Your task to perform on an android device: Go to Amazon Image 0: 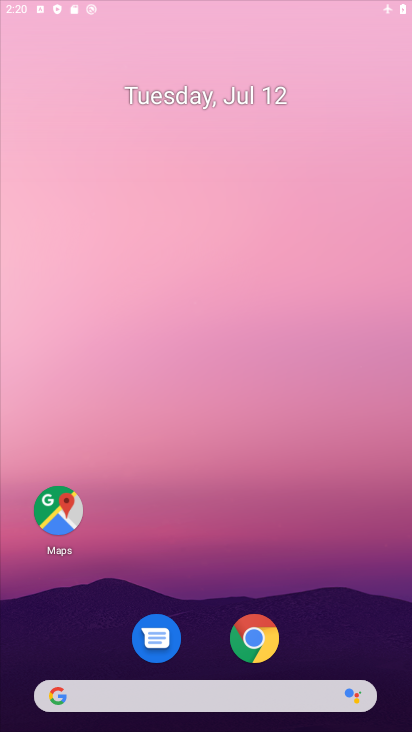
Step 0: click (294, 24)
Your task to perform on an android device: Go to Amazon Image 1: 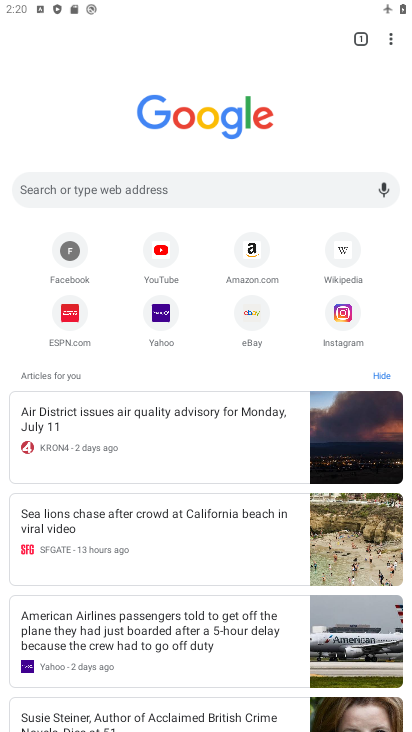
Step 1: press back button
Your task to perform on an android device: Go to Amazon Image 2: 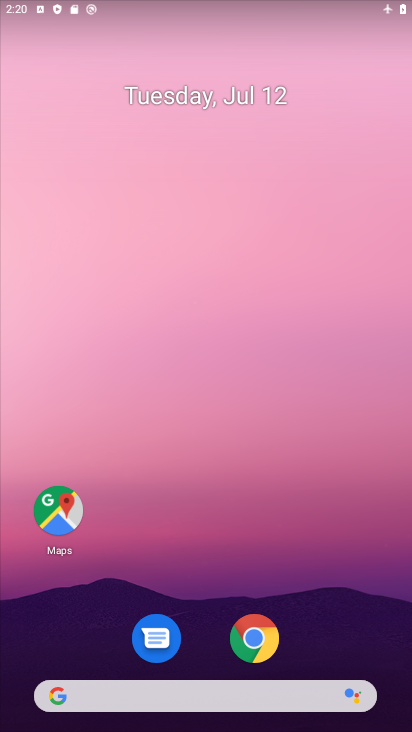
Step 2: click (240, 635)
Your task to perform on an android device: Go to Amazon Image 3: 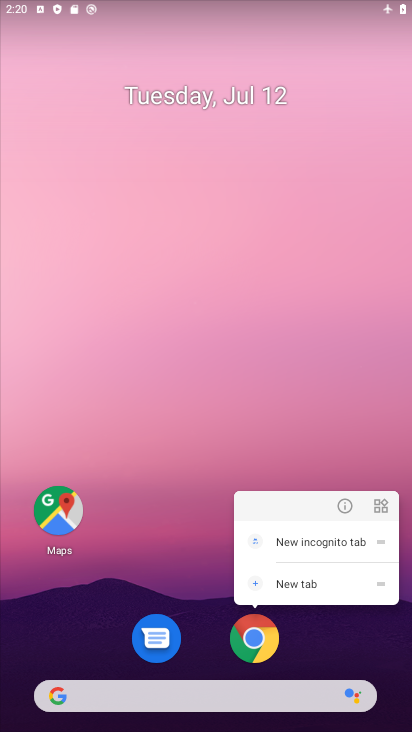
Step 3: click (248, 634)
Your task to perform on an android device: Go to Amazon Image 4: 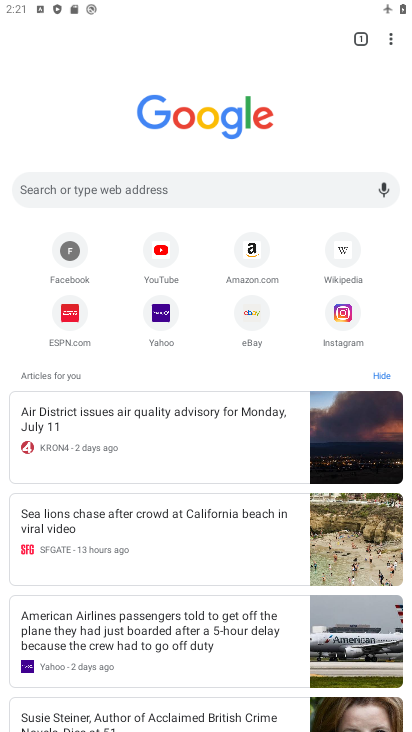
Step 4: click (253, 252)
Your task to perform on an android device: Go to Amazon Image 5: 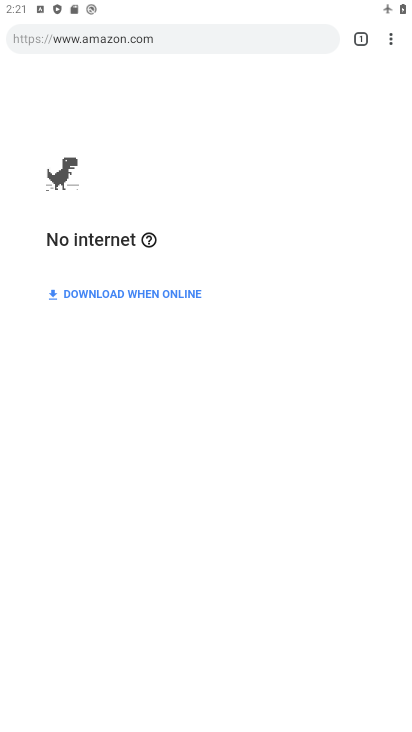
Step 5: drag from (366, 5) to (293, 620)
Your task to perform on an android device: Go to Amazon Image 6: 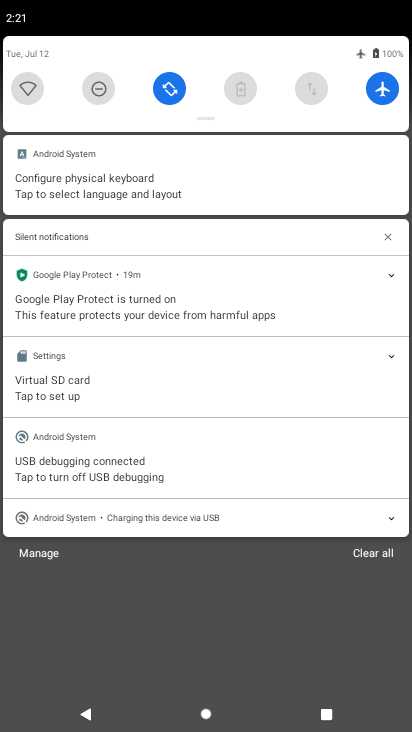
Step 6: click (382, 89)
Your task to perform on an android device: Go to Amazon Image 7: 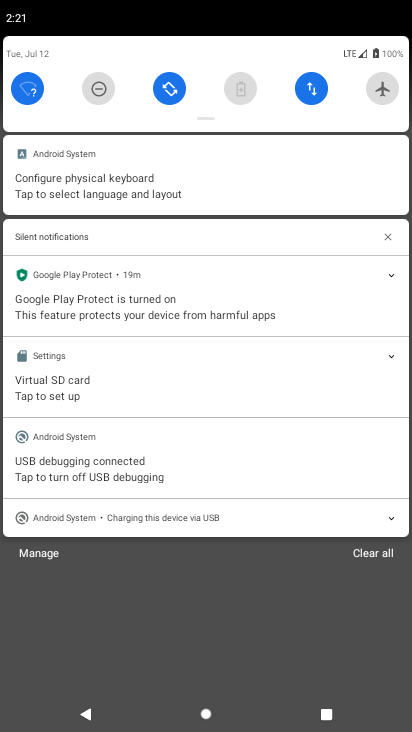
Step 7: click (211, 644)
Your task to perform on an android device: Go to Amazon Image 8: 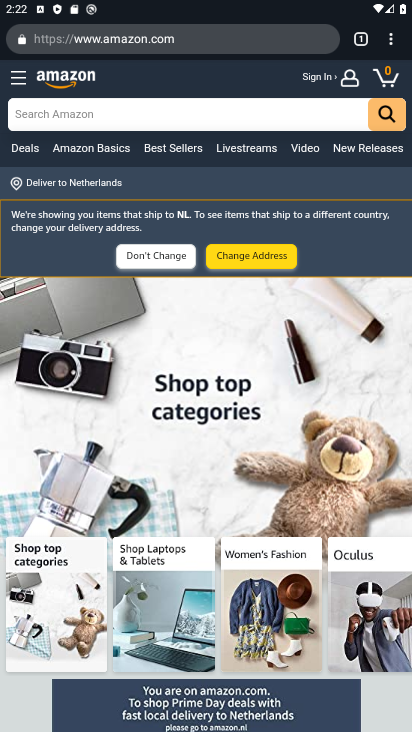
Step 8: task complete